Your task to perform on an android device: Is it going to rain today? Image 0: 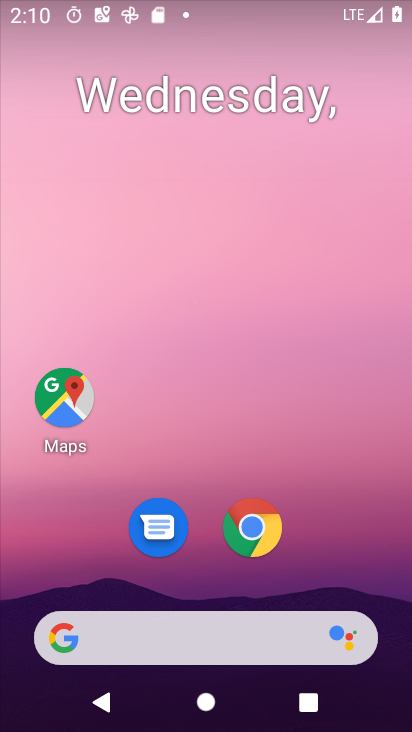
Step 0: drag from (67, 287) to (409, 269)
Your task to perform on an android device: Is it going to rain today? Image 1: 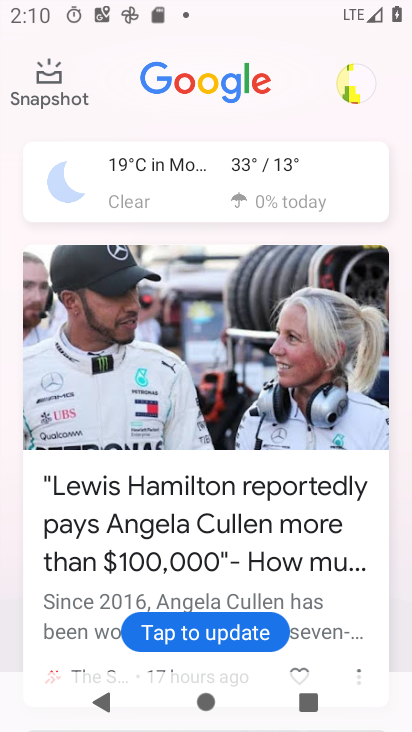
Step 1: click (163, 181)
Your task to perform on an android device: Is it going to rain today? Image 2: 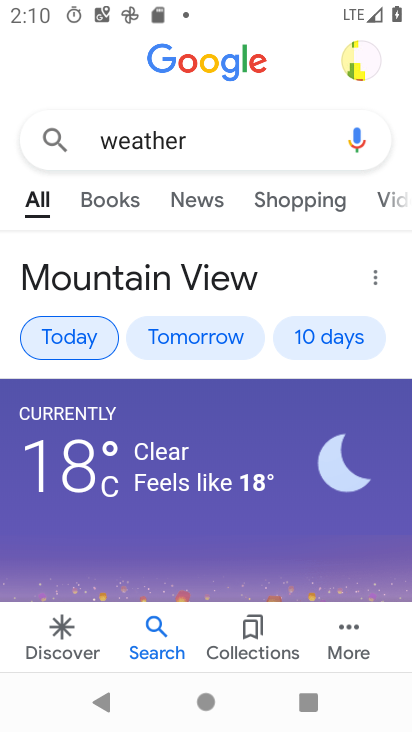
Step 2: task complete